Your task to perform on an android device: turn on sleep mode Image 0: 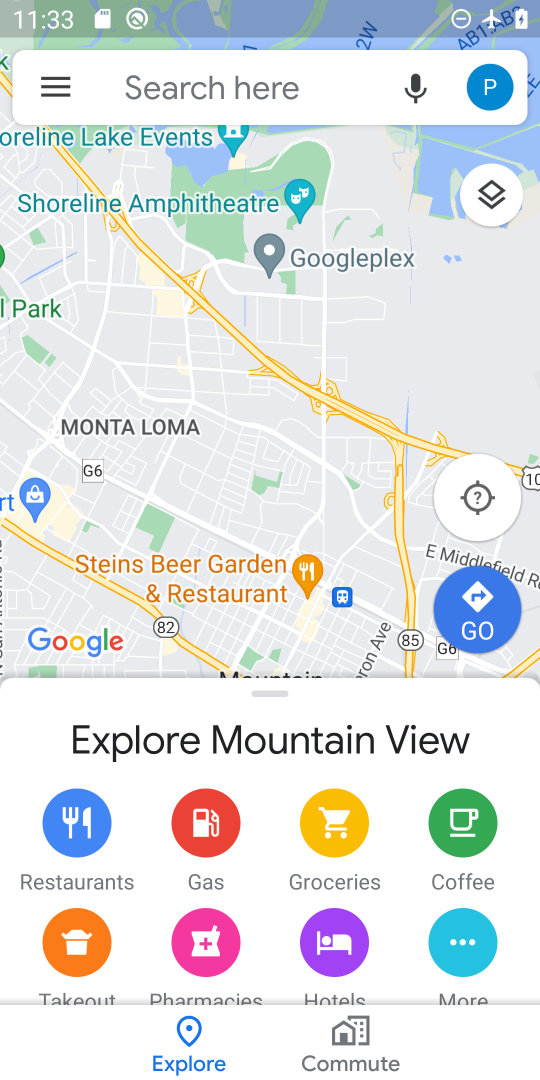
Step 0: press home button
Your task to perform on an android device: turn on sleep mode Image 1: 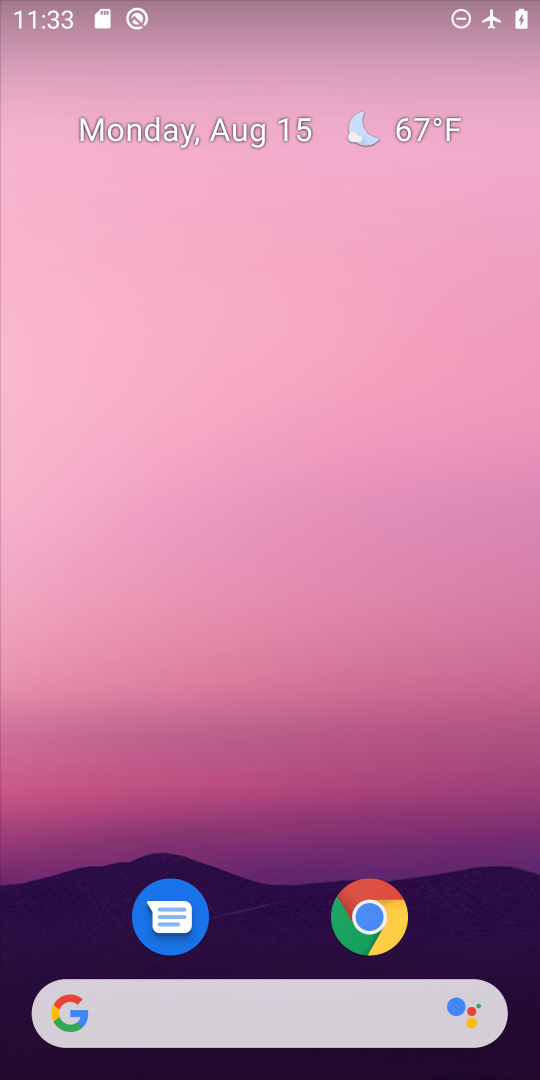
Step 1: drag from (315, 753) to (314, 9)
Your task to perform on an android device: turn on sleep mode Image 2: 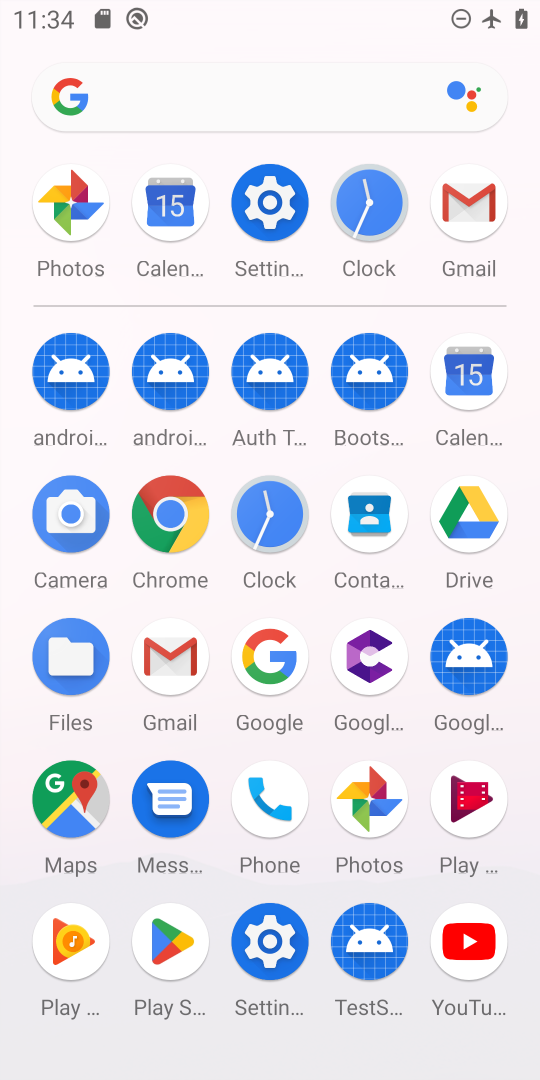
Step 2: click (274, 193)
Your task to perform on an android device: turn on sleep mode Image 3: 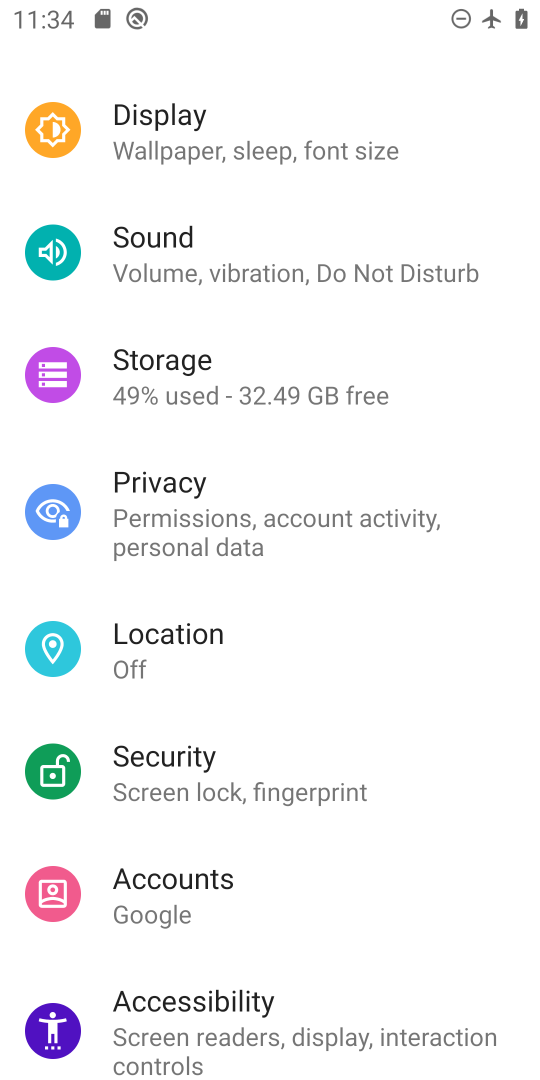
Step 3: click (298, 145)
Your task to perform on an android device: turn on sleep mode Image 4: 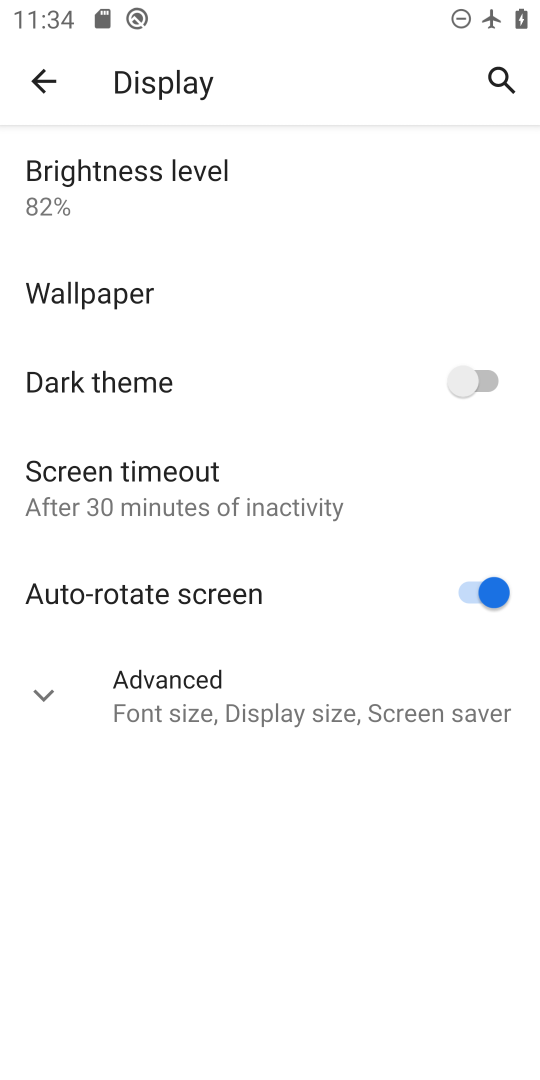
Step 4: click (38, 688)
Your task to perform on an android device: turn on sleep mode Image 5: 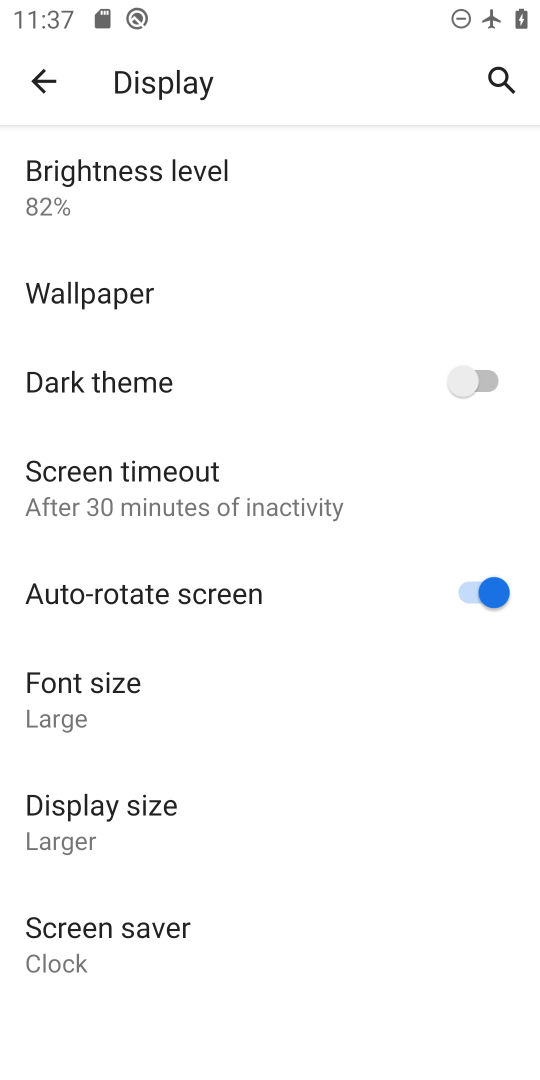
Step 5: task complete